Your task to perform on an android device: Open privacy settings Image 0: 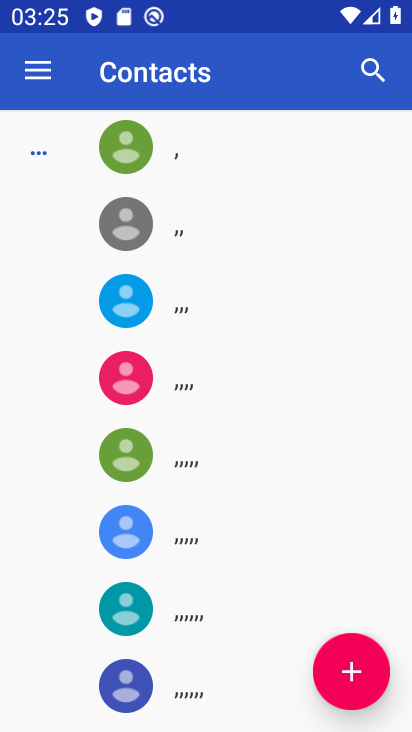
Step 0: press home button
Your task to perform on an android device: Open privacy settings Image 1: 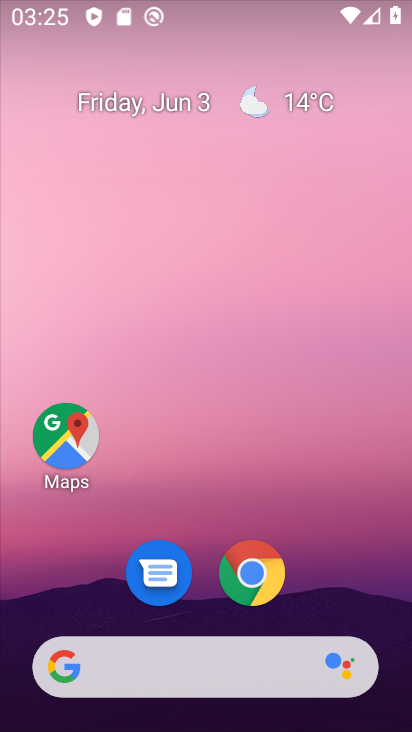
Step 1: drag from (299, 643) to (379, 0)
Your task to perform on an android device: Open privacy settings Image 2: 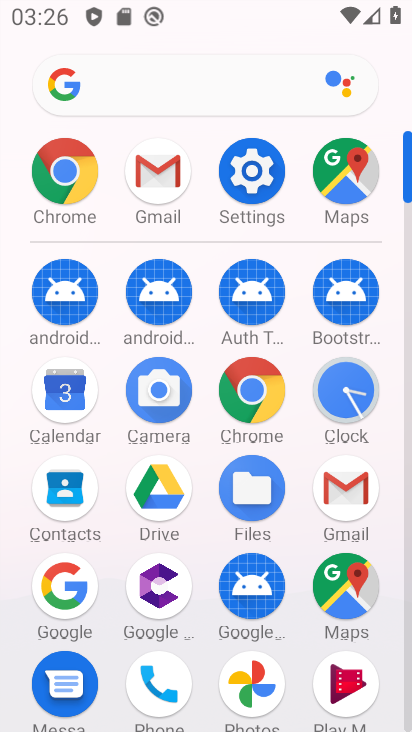
Step 2: click (260, 162)
Your task to perform on an android device: Open privacy settings Image 3: 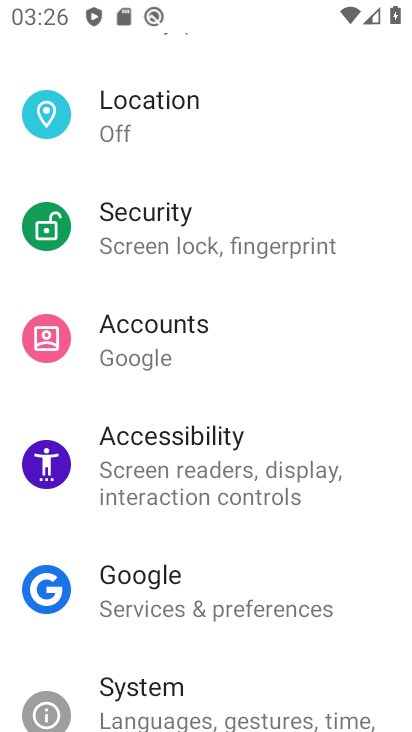
Step 3: drag from (258, 240) to (263, 729)
Your task to perform on an android device: Open privacy settings Image 4: 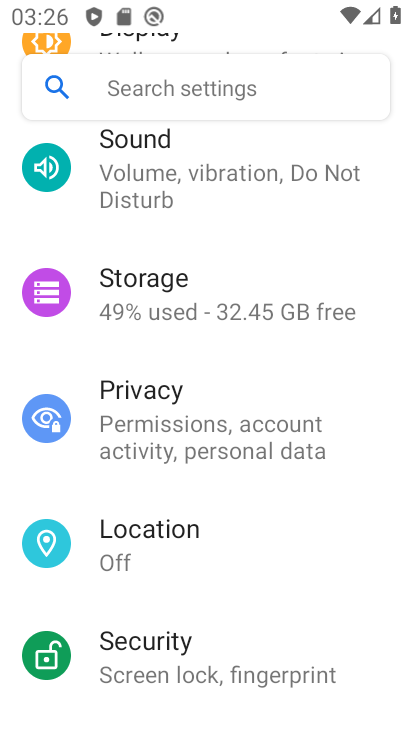
Step 4: click (185, 458)
Your task to perform on an android device: Open privacy settings Image 5: 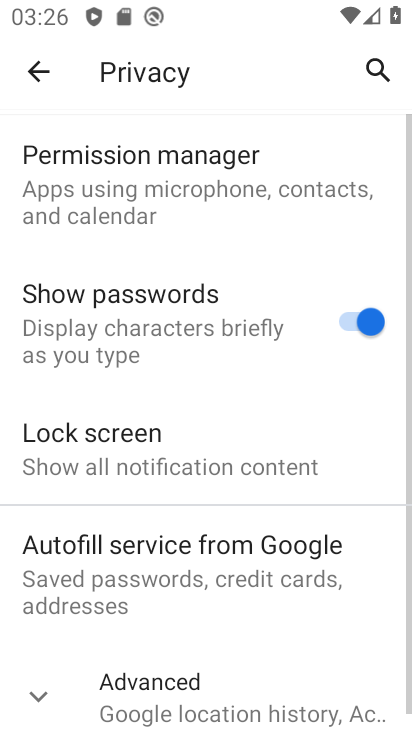
Step 5: task complete